Your task to perform on an android device: refresh tabs in the chrome app Image 0: 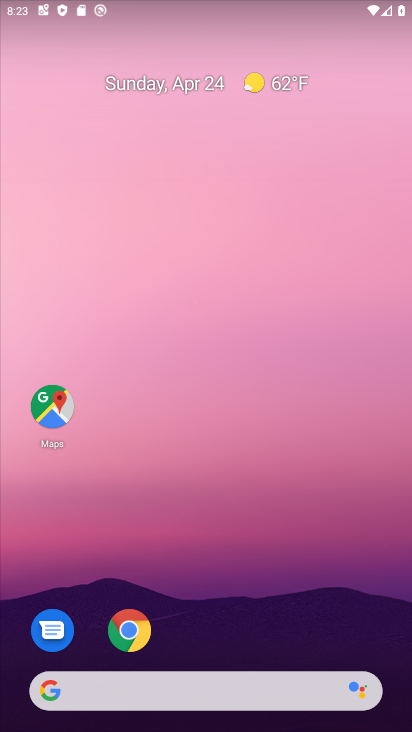
Step 0: drag from (254, 537) to (220, 79)
Your task to perform on an android device: refresh tabs in the chrome app Image 1: 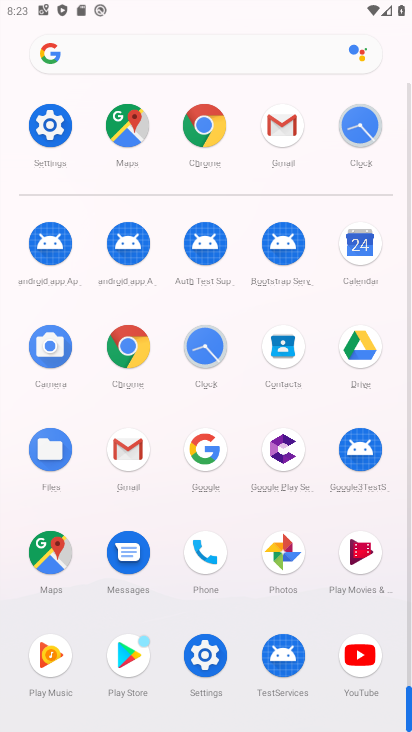
Step 1: click (132, 341)
Your task to perform on an android device: refresh tabs in the chrome app Image 2: 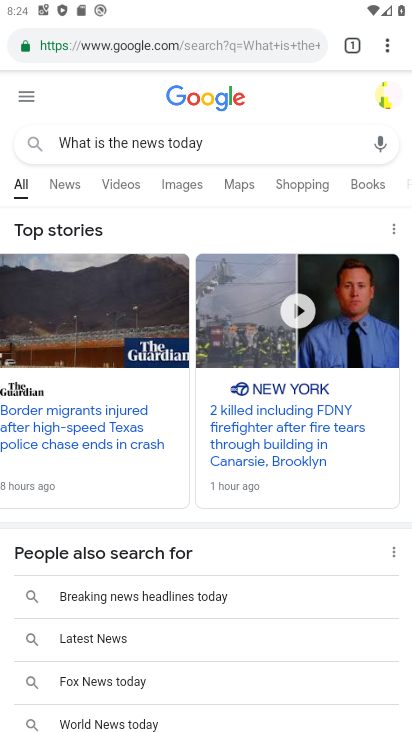
Step 2: click (383, 48)
Your task to perform on an android device: refresh tabs in the chrome app Image 3: 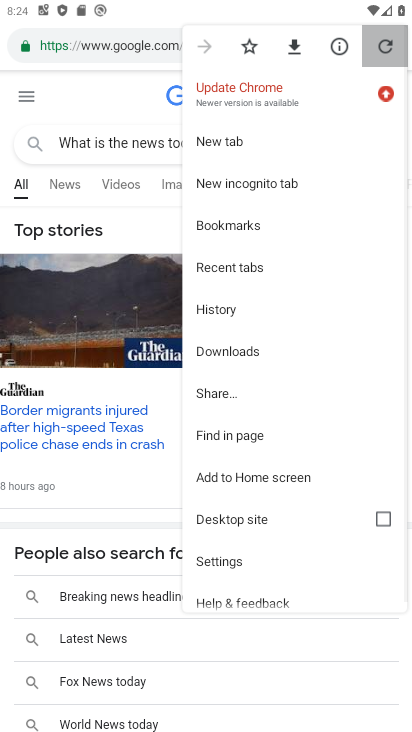
Step 3: click (383, 48)
Your task to perform on an android device: refresh tabs in the chrome app Image 4: 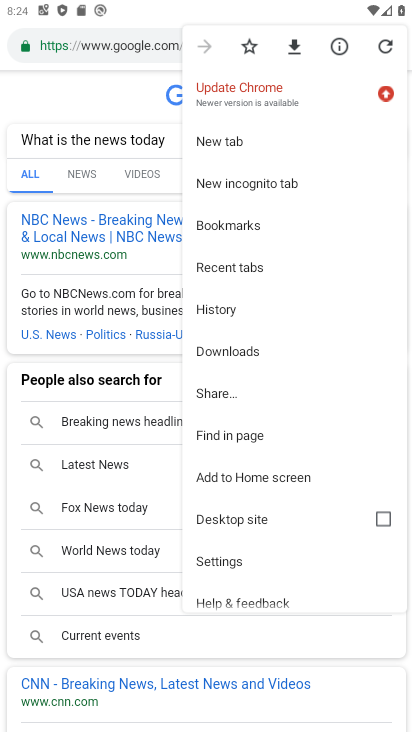
Step 4: click (61, 91)
Your task to perform on an android device: refresh tabs in the chrome app Image 5: 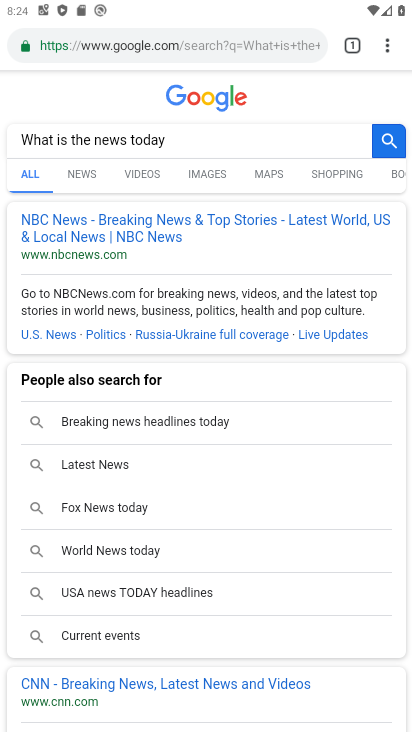
Step 5: task complete